Your task to perform on an android device: Go to Google Image 0: 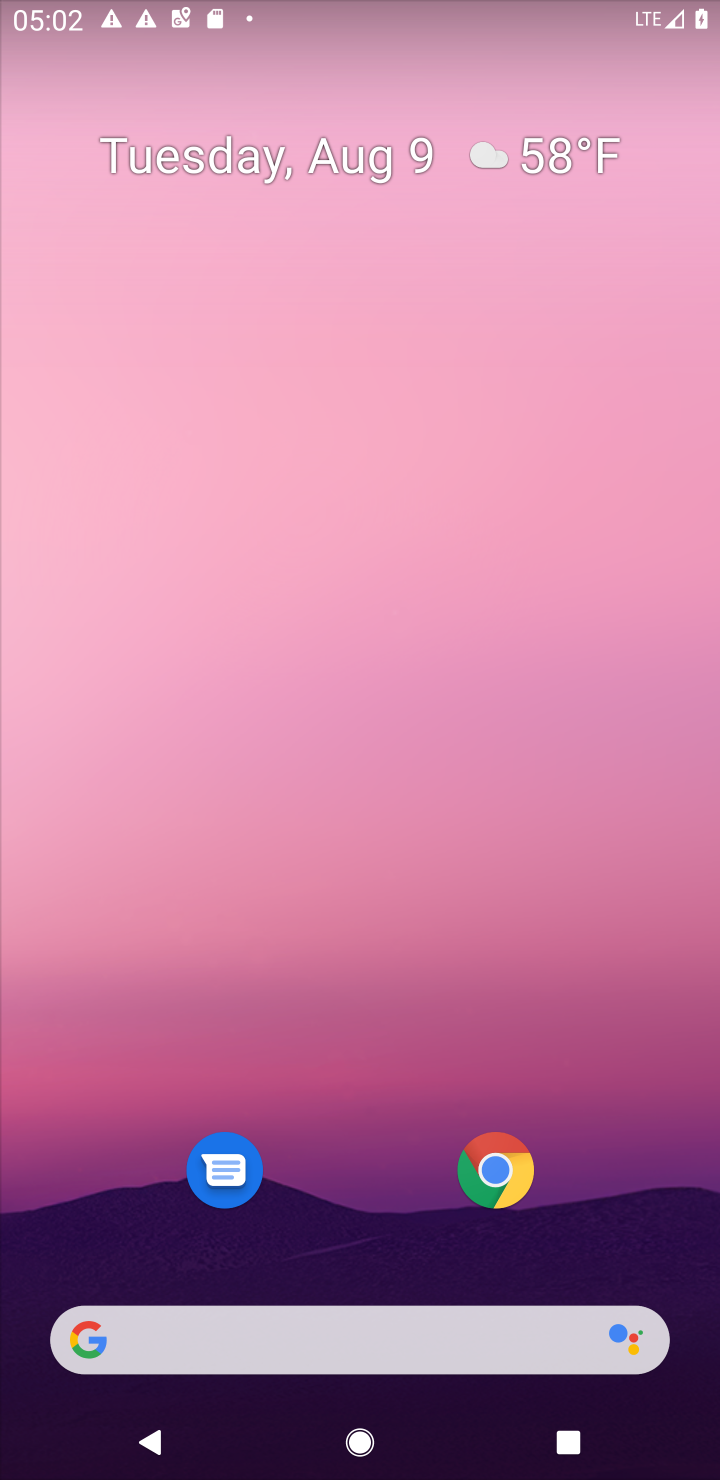
Step 0: press home button
Your task to perform on an android device: Go to Google Image 1: 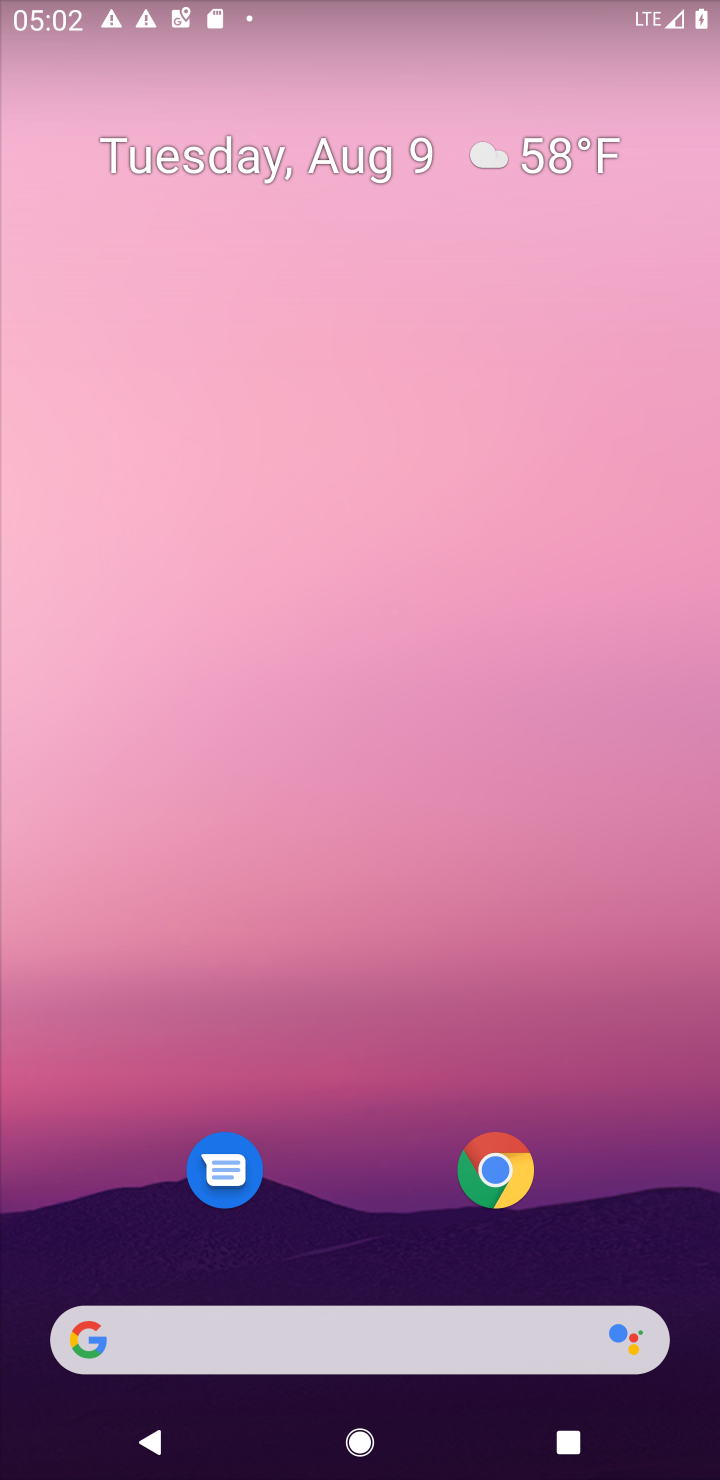
Step 1: drag from (376, 1164) to (161, 64)
Your task to perform on an android device: Go to Google Image 2: 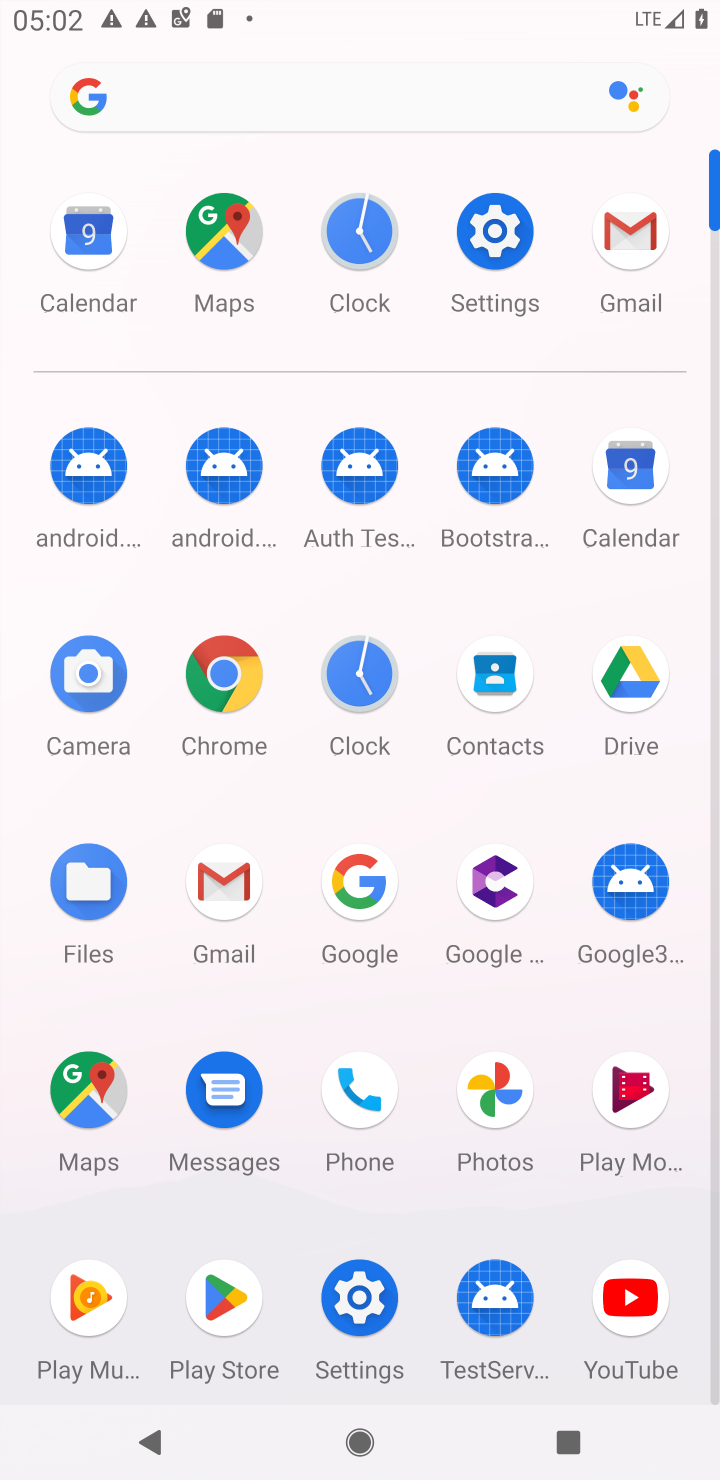
Step 2: click (350, 855)
Your task to perform on an android device: Go to Google Image 3: 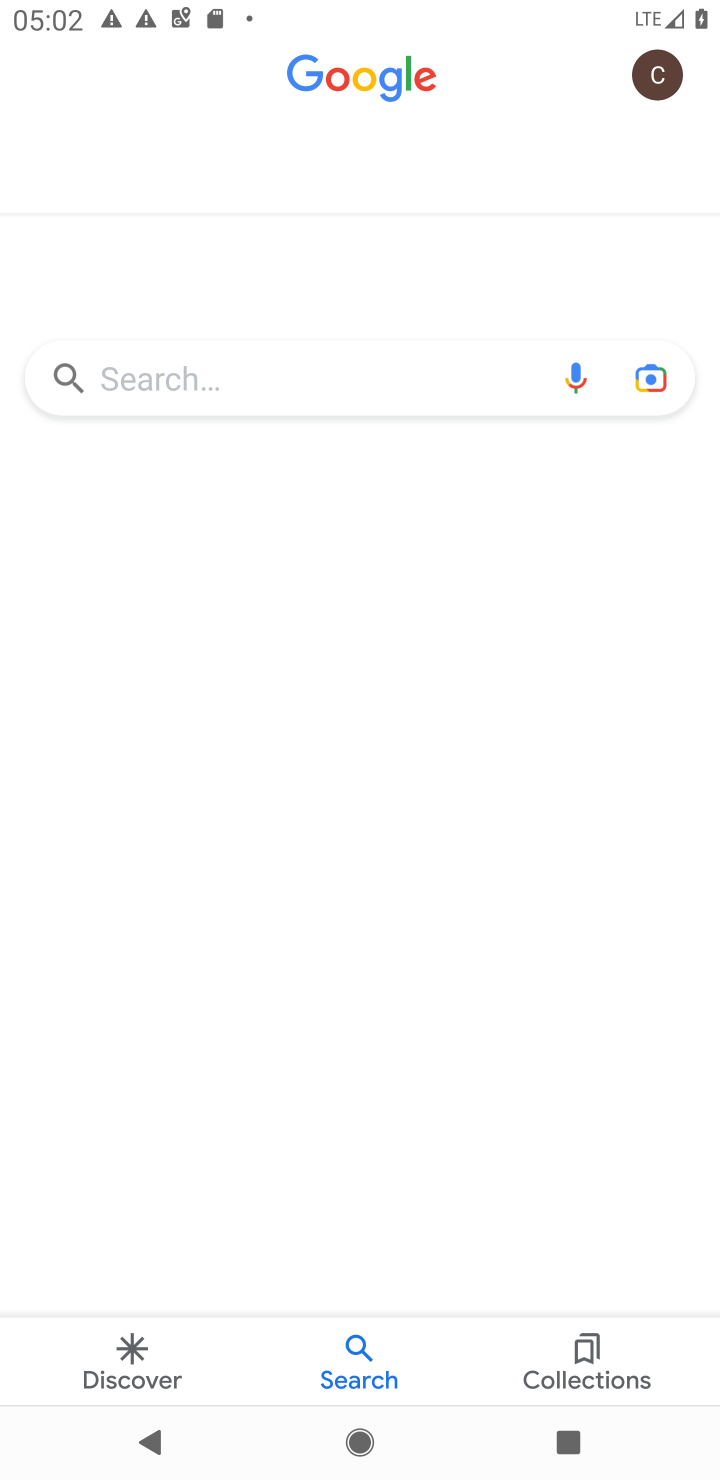
Step 3: task complete